Your task to perform on an android device: Open Google Image 0: 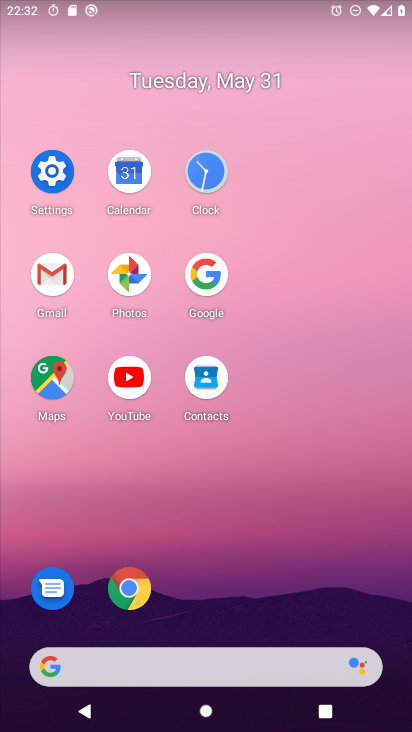
Step 0: click (204, 287)
Your task to perform on an android device: Open Google Image 1: 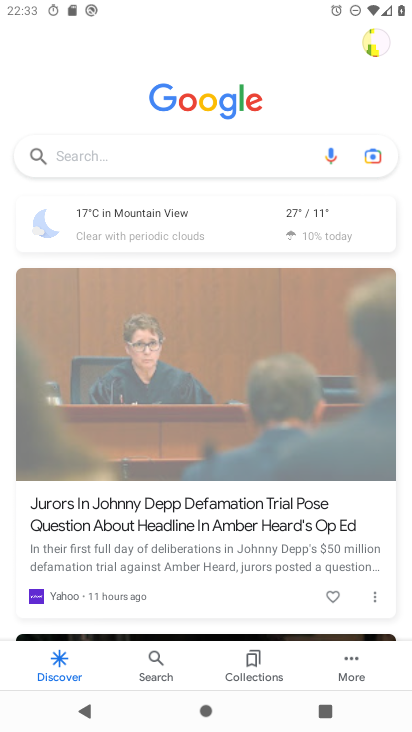
Step 1: task complete